Your task to perform on an android device: Is it going to rain today? Image 0: 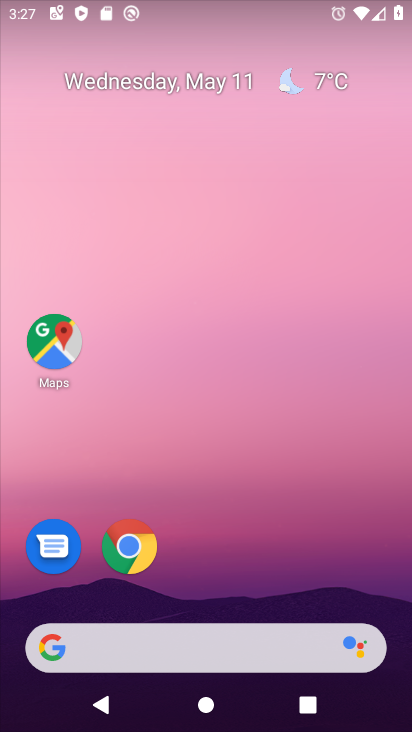
Step 0: drag from (321, 626) to (262, 25)
Your task to perform on an android device: Is it going to rain today? Image 1: 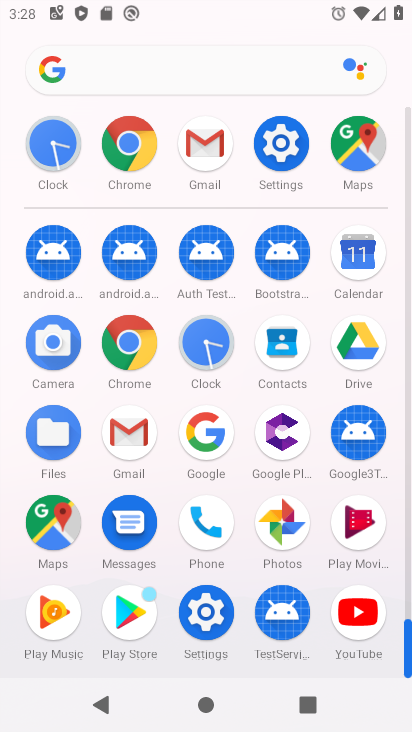
Step 1: click (367, 267)
Your task to perform on an android device: Is it going to rain today? Image 2: 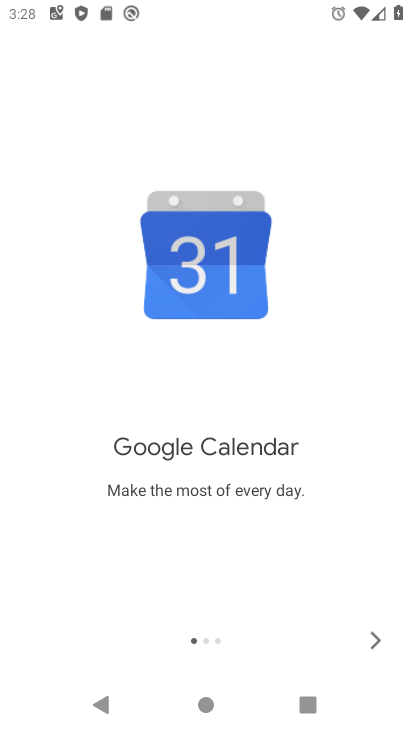
Step 2: click (375, 637)
Your task to perform on an android device: Is it going to rain today? Image 3: 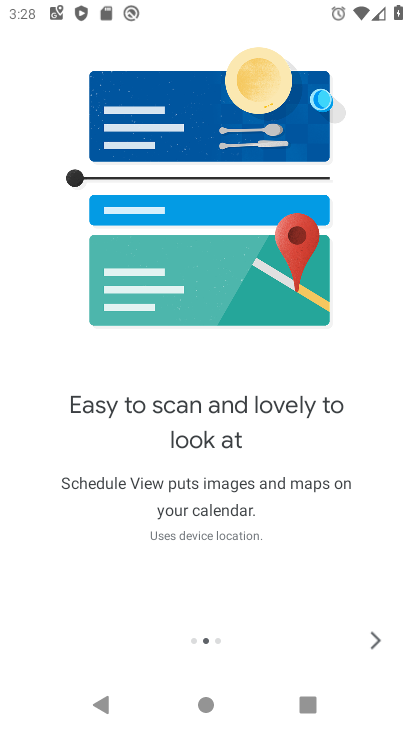
Step 3: press home button
Your task to perform on an android device: Is it going to rain today? Image 4: 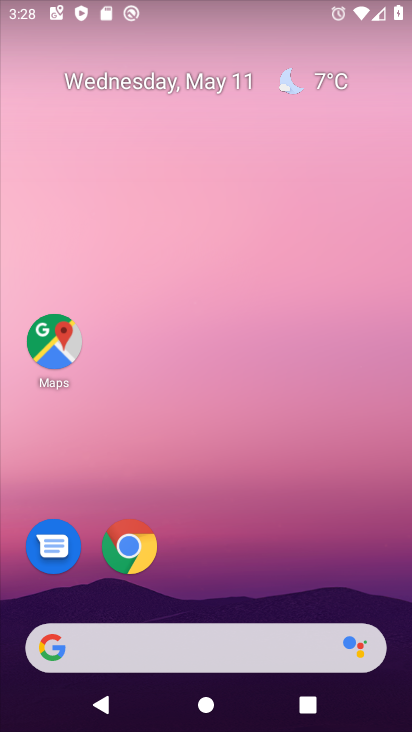
Step 4: drag from (269, 581) to (257, 124)
Your task to perform on an android device: Is it going to rain today? Image 5: 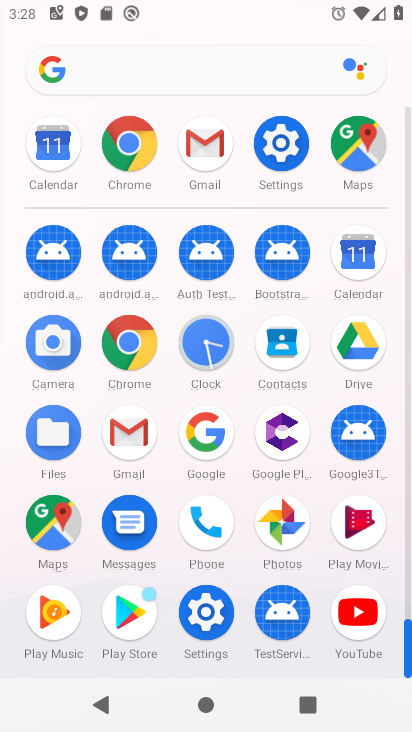
Step 5: click (126, 341)
Your task to perform on an android device: Is it going to rain today? Image 6: 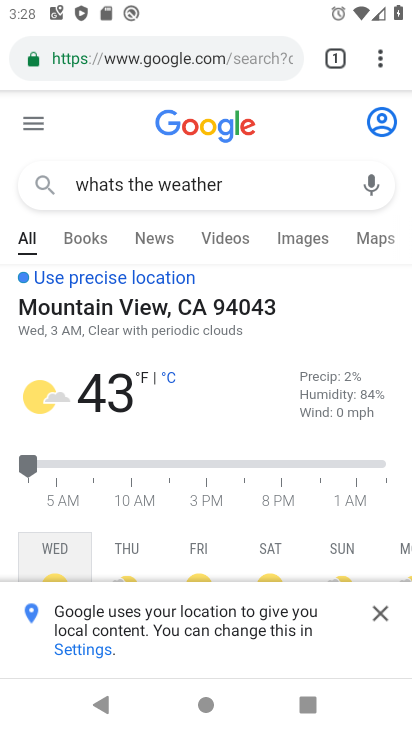
Step 6: click (247, 62)
Your task to perform on an android device: Is it going to rain today? Image 7: 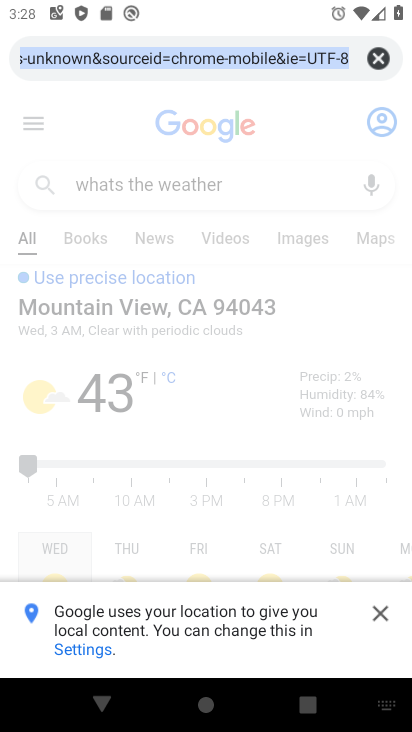
Step 7: click (375, 54)
Your task to perform on an android device: Is it going to rain today? Image 8: 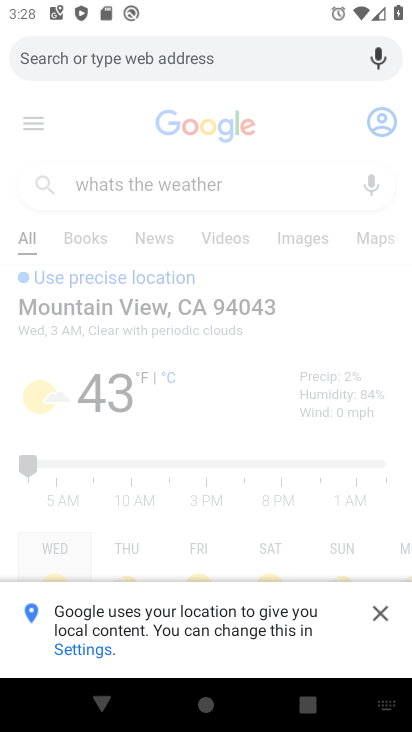
Step 8: type "going to rain today"
Your task to perform on an android device: Is it going to rain today? Image 9: 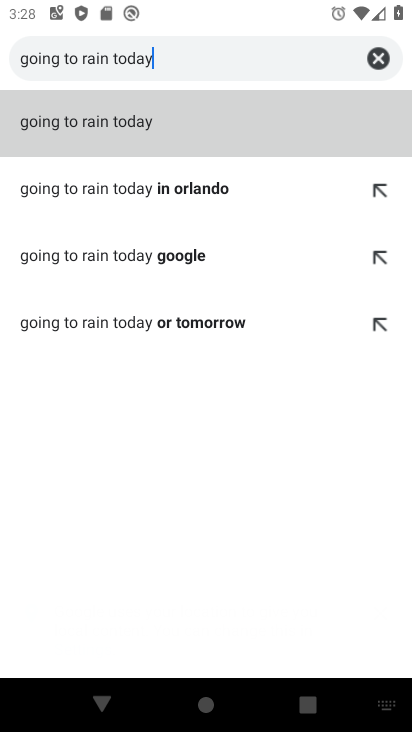
Step 9: click (334, 131)
Your task to perform on an android device: Is it going to rain today? Image 10: 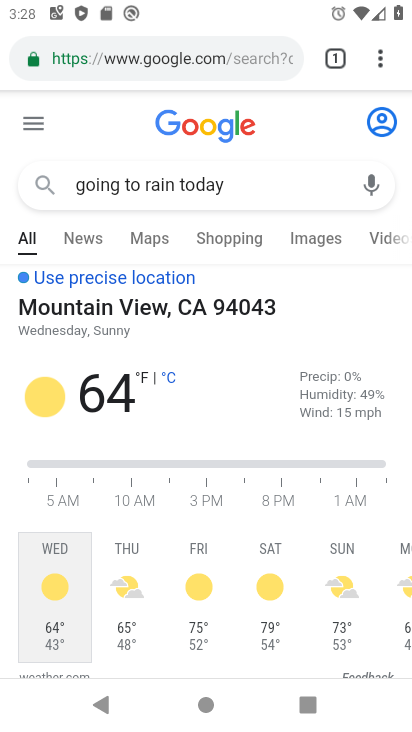
Step 10: task complete